Your task to perform on an android device: Search for Mexican restaurants on Maps Image 0: 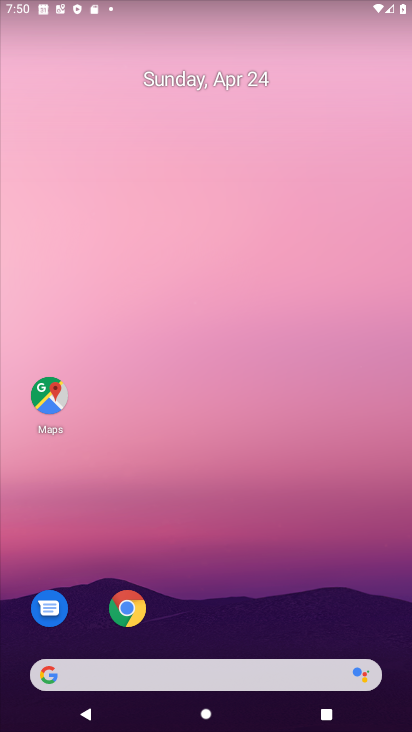
Step 0: drag from (245, 603) to (291, 166)
Your task to perform on an android device: Search for Mexican restaurants on Maps Image 1: 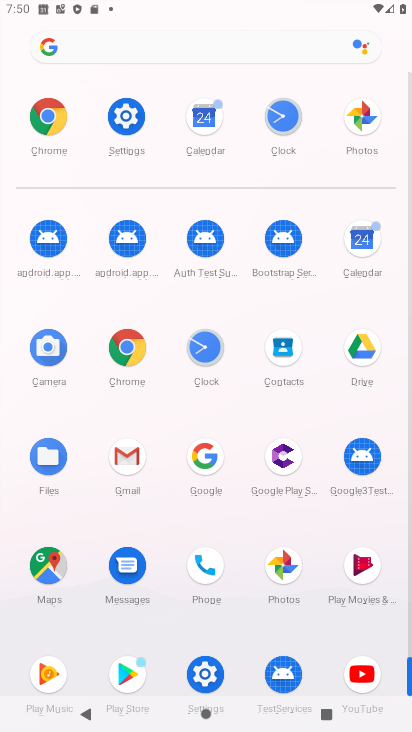
Step 1: click (44, 556)
Your task to perform on an android device: Search for Mexican restaurants on Maps Image 2: 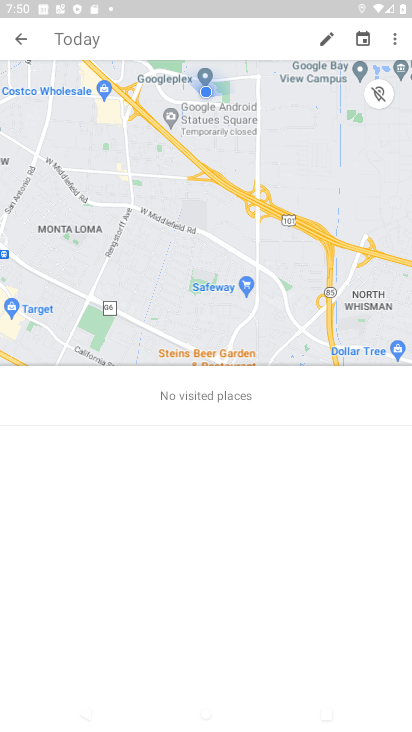
Step 2: click (17, 37)
Your task to perform on an android device: Search for Mexican restaurants on Maps Image 3: 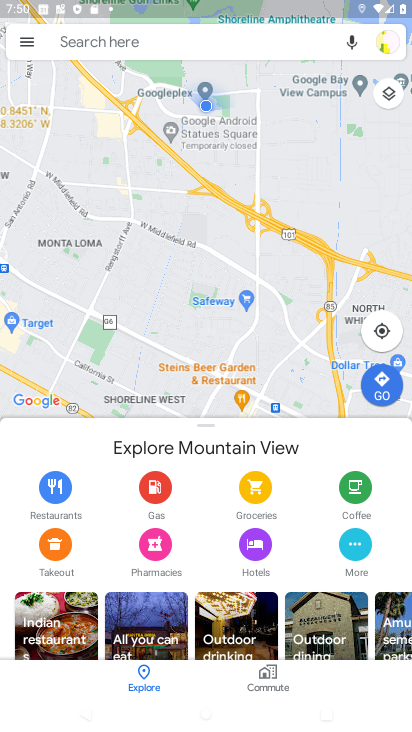
Step 3: click (157, 44)
Your task to perform on an android device: Search for Mexican restaurants on Maps Image 4: 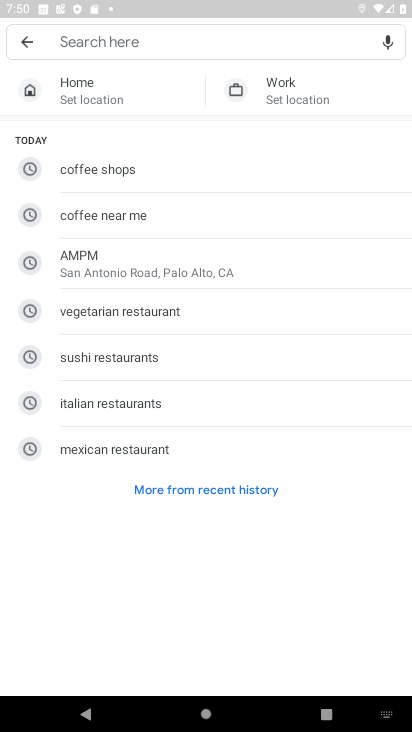
Step 4: type "mexican restaurants"
Your task to perform on an android device: Search for Mexican restaurants on Maps Image 5: 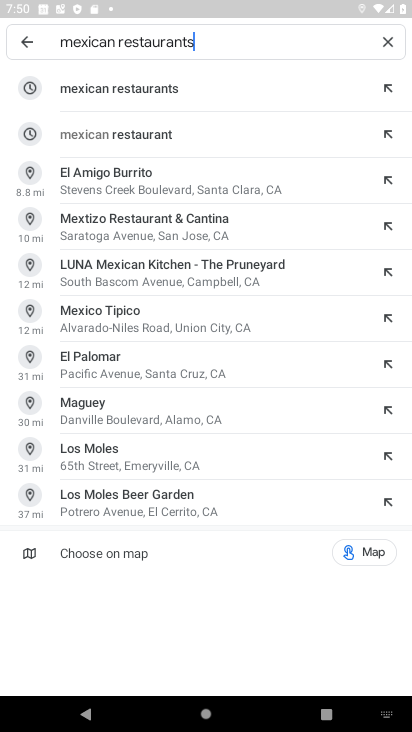
Step 5: click (102, 95)
Your task to perform on an android device: Search for Mexican restaurants on Maps Image 6: 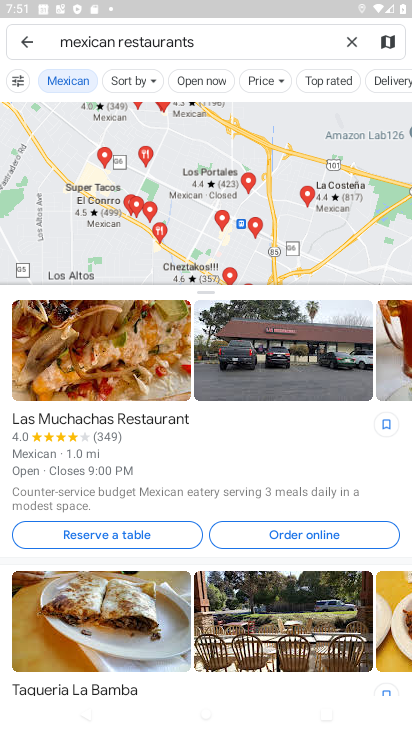
Step 6: task complete